Your task to perform on an android device: Open notification settings Image 0: 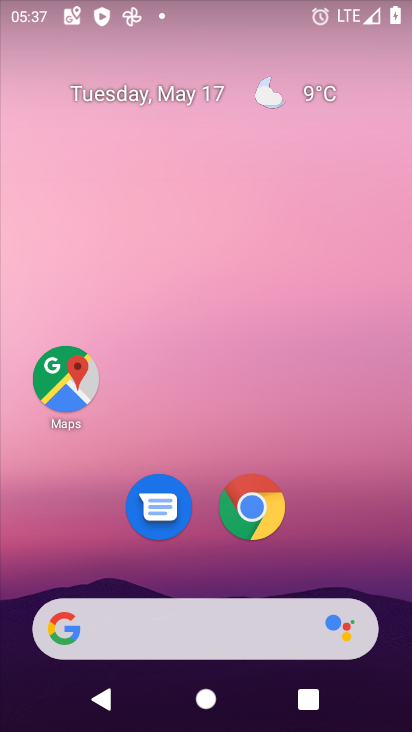
Step 0: drag from (304, 388) to (230, 108)
Your task to perform on an android device: Open notification settings Image 1: 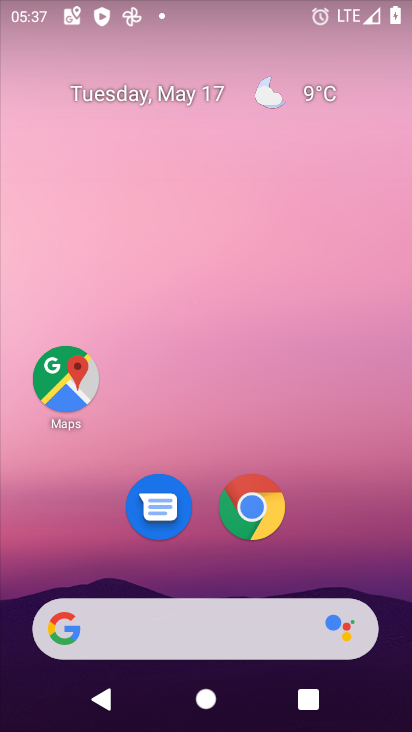
Step 1: drag from (347, 552) to (247, 53)
Your task to perform on an android device: Open notification settings Image 2: 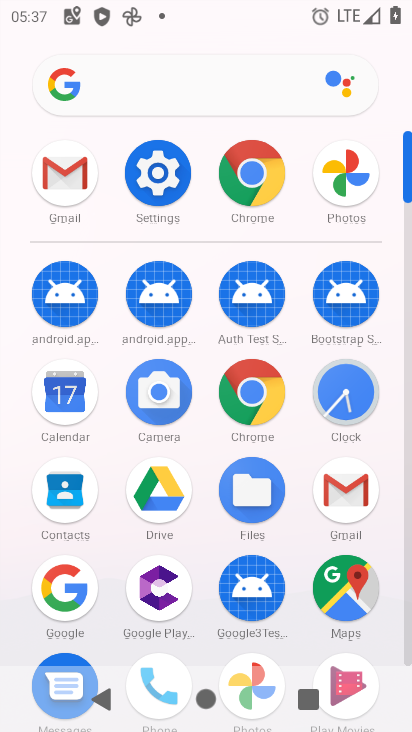
Step 2: click (150, 161)
Your task to perform on an android device: Open notification settings Image 3: 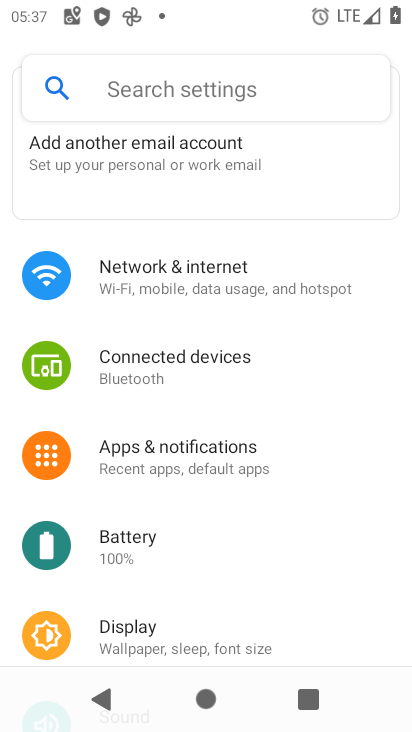
Step 3: click (191, 478)
Your task to perform on an android device: Open notification settings Image 4: 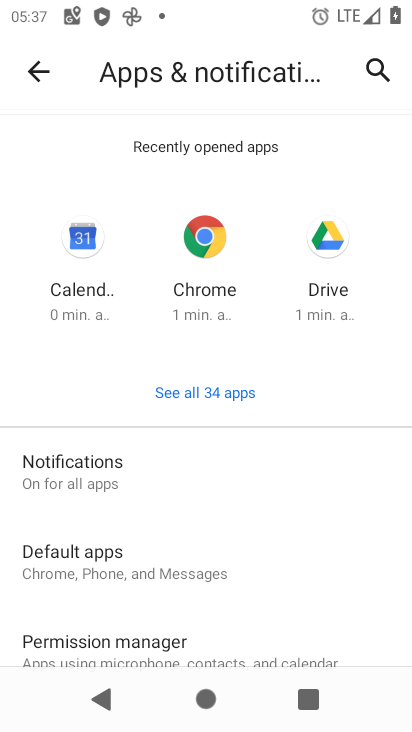
Step 4: click (202, 486)
Your task to perform on an android device: Open notification settings Image 5: 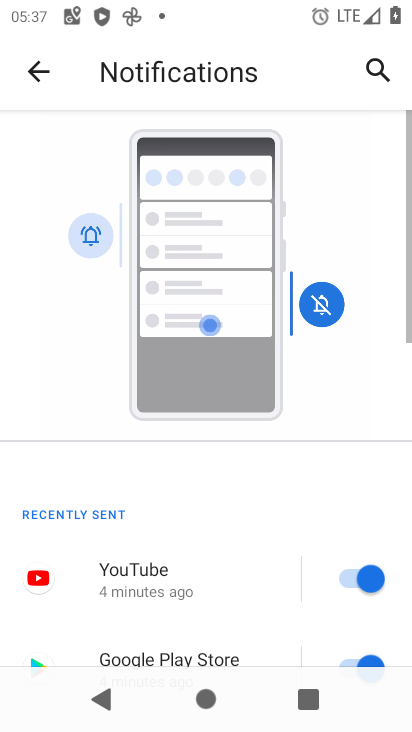
Step 5: task complete